Your task to perform on an android device: Open calendar and show me the second week of next month Image 0: 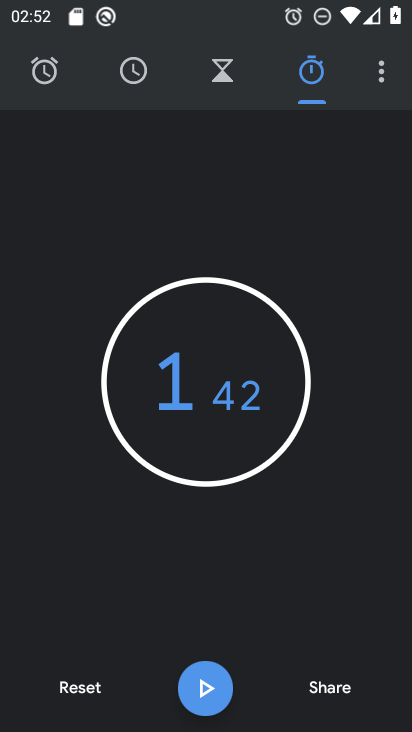
Step 0: press home button
Your task to perform on an android device: Open calendar and show me the second week of next month Image 1: 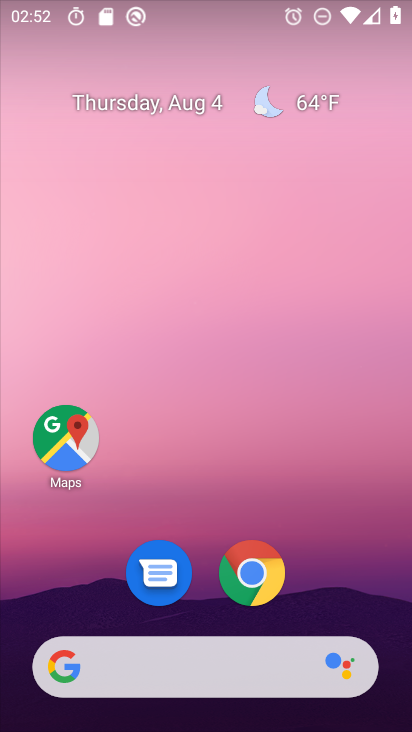
Step 1: drag from (323, 487) to (400, 29)
Your task to perform on an android device: Open calendar and show me the second week of next month Image 2: 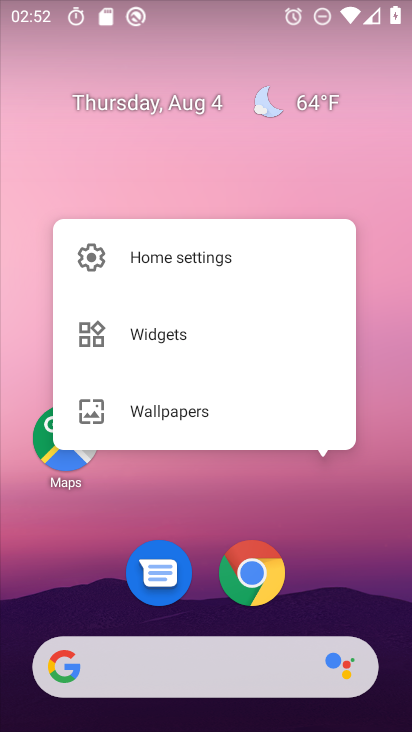
Step 2: click (326, 519)
Your task to perform on an android device: Open calendar and show me the second week of next month Image 3: 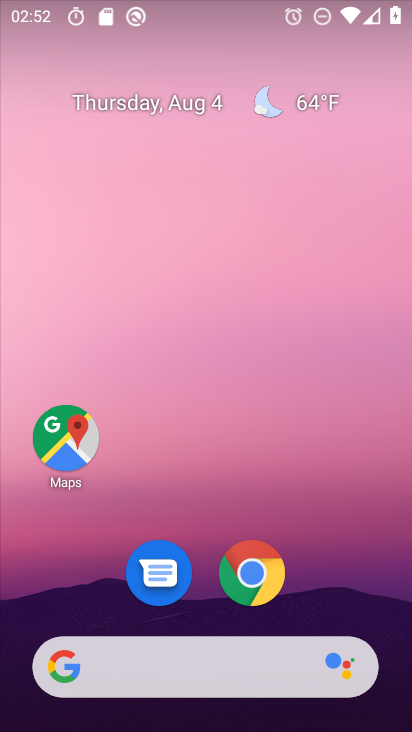
Step 3: drag from (359, 553) to (388, 60)
Your task to perform on an android device: Open calendar and show me the second week of next month Image 4: 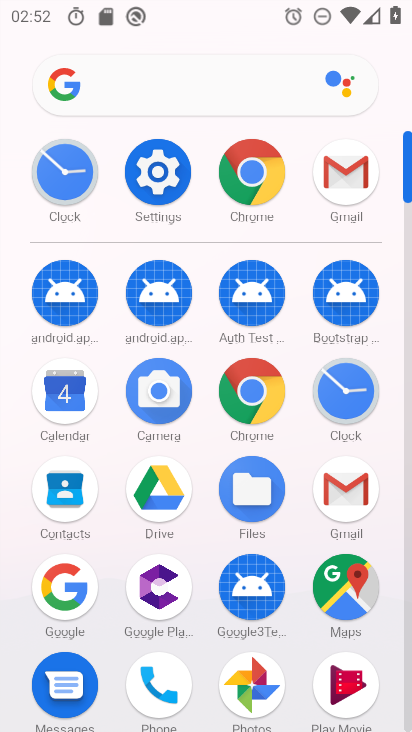
Step 4: click (60, 384)
Your task to perform on an android device: Open calendar and show me the second week of next month Image 5: 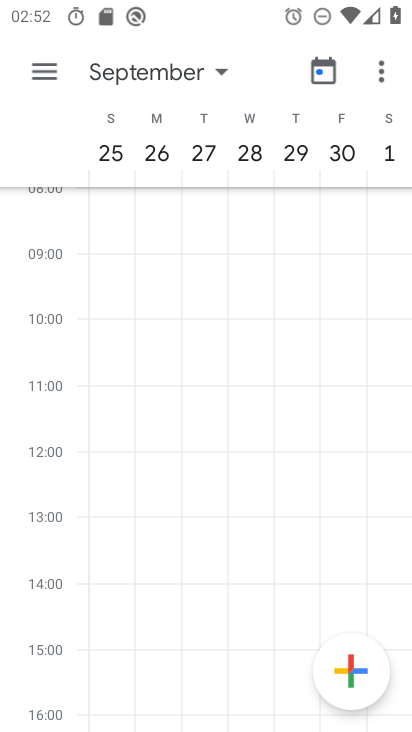
Step 5: click (213, 133)
Your task to perform on an android device: Open calendar and show me the second week of next month Image 6: 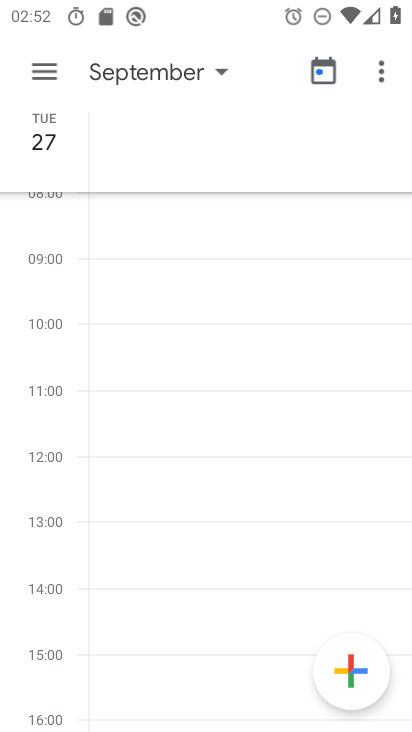
Step 6: click (202, 78)
Your task to perform on an android device: Open calendar and show me the second week of next month Image 7: 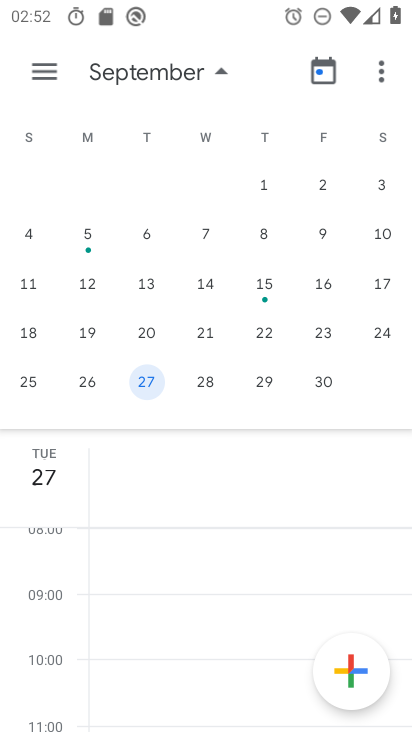
Step 7: click (151, 286)
Your task to perform on an android device: Open calendar and show me the second week of next month Image 8: 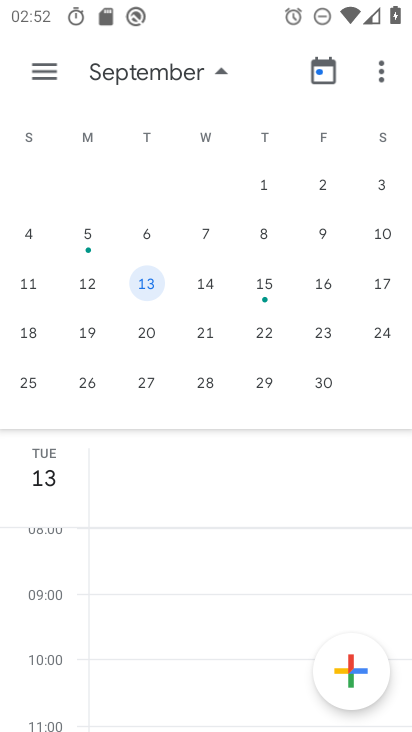
Step 8: task complete